Your task to perform on an android device: Is it going to rain this weekend? Image 0: 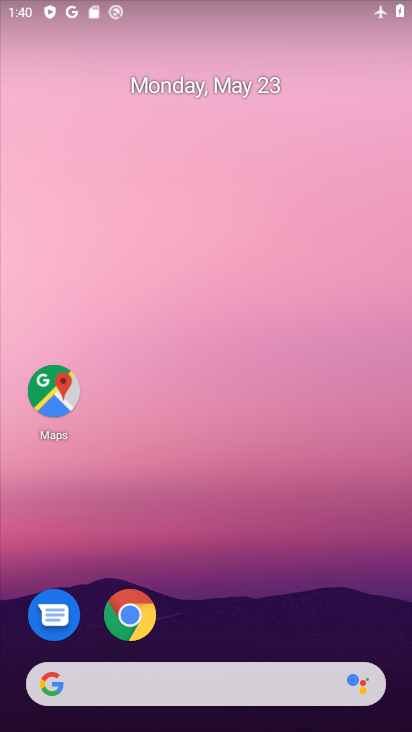
Step 0: click (194, 718)
Your task to perform on an android device: Is it going to rain this weekend? Image 1: 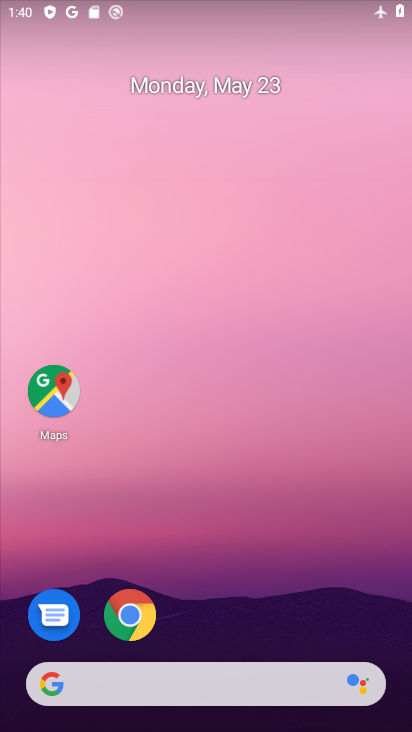
Step 1: click (229, 682)
Your task to perform on an android device: Is it going to rain this weekend? Image 2: 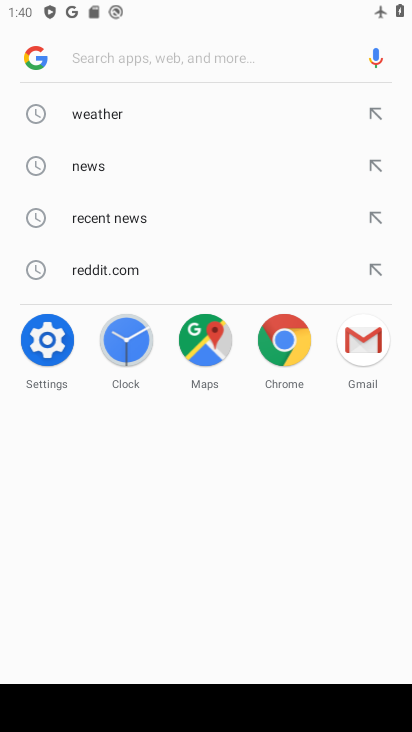
Step 2: click (108, 101)
Your task to perform on an android device: Is it going to rain this weekend? Image 3: 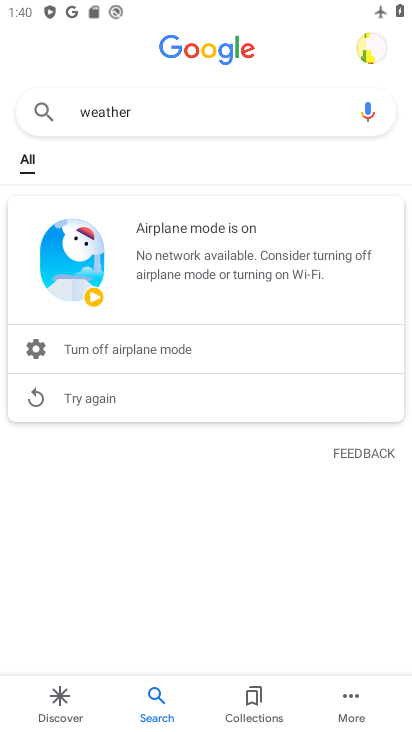
Step 3: task complete